Your task to perform on an android device: toggle sleep mode Image 0: 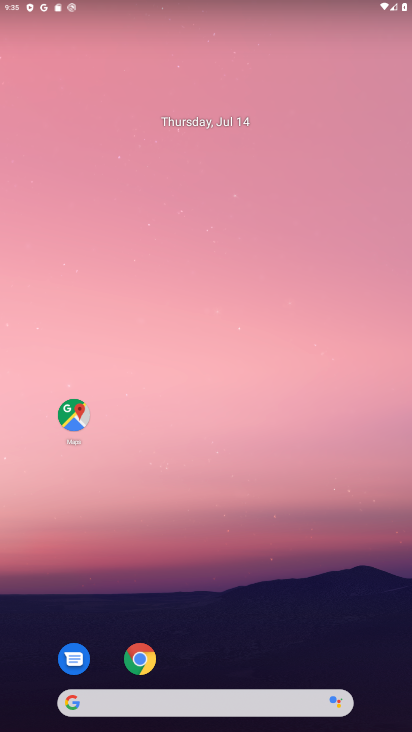
Step 0: drag from (263, 658) to (222, 112)
Your task to perform on an android device: toggle sleep mode Image 1: 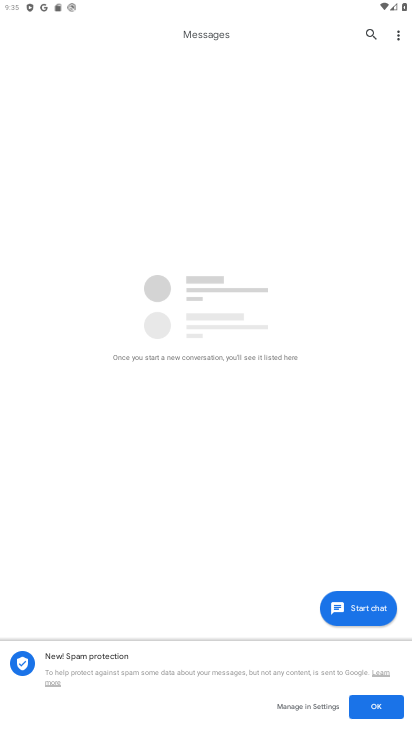
Step 1: press home button
Your task to perform on an android device: toggle sleep mode Image 2: 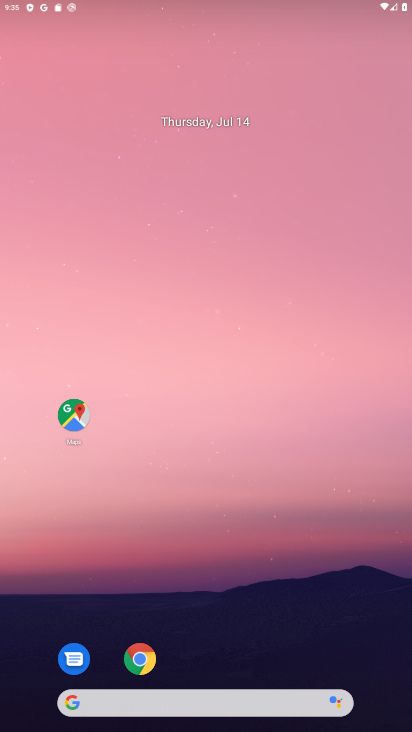
Step 2: drag from (354, 647) to (309, 150)
Your task to perform on an android device: toggle sleep mode Image 3: 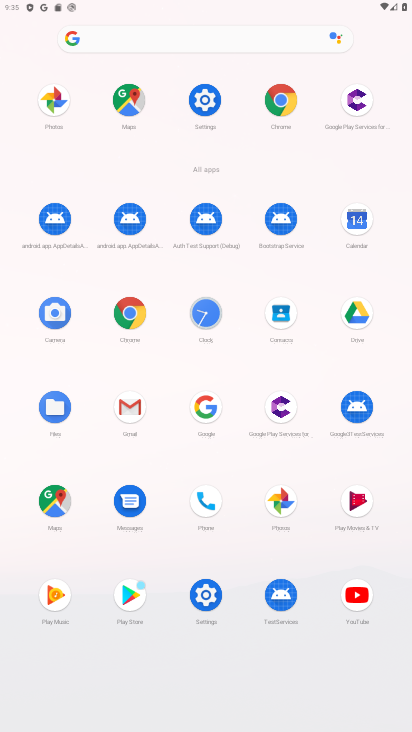
Step 3: click (207, 108)
Your task to perform on an android device: toggle sleep mode Image 4: 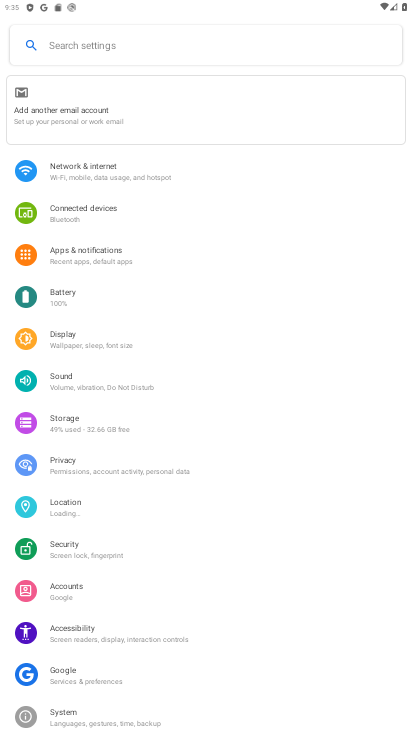
Step 4: click (93, 339)
Your task to perform on an android device: toggle sleep mode Image 5: 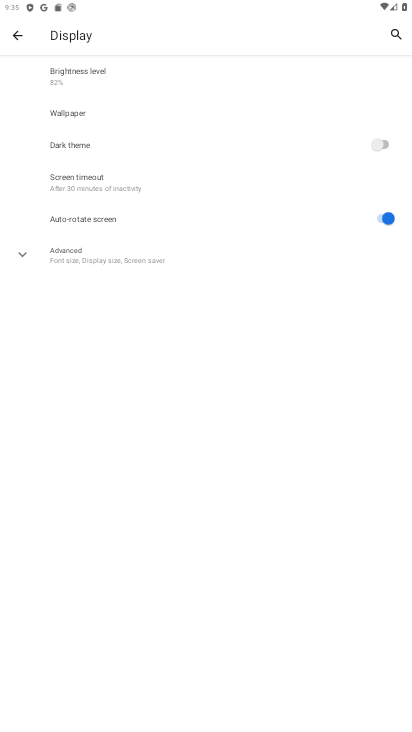
Step 5: click (132, 188)
Your task to perform on an android device: toggle sleep mode Image 6: 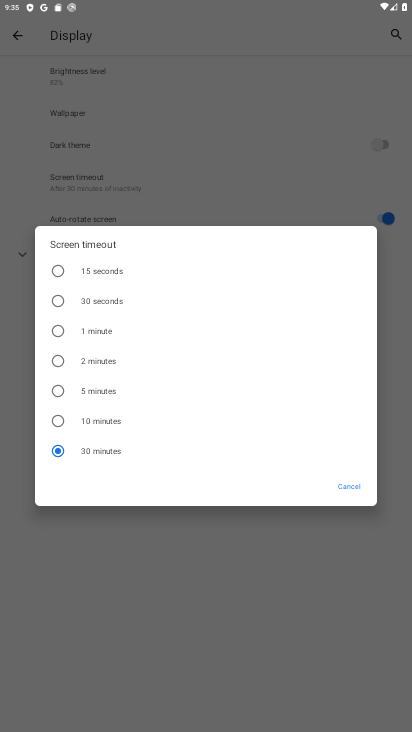
Step 6: click (105, 418)
Your task to perform on an android device: toggle sleep mode Image 7: 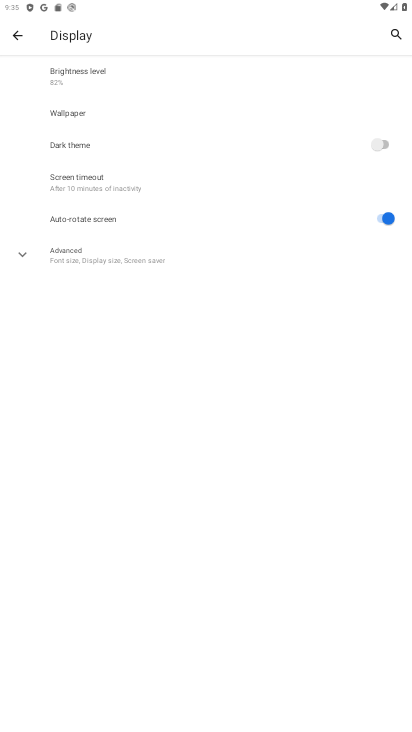
Step 7: task complete